Your task to perform on an android device: Open eBay Image 0: 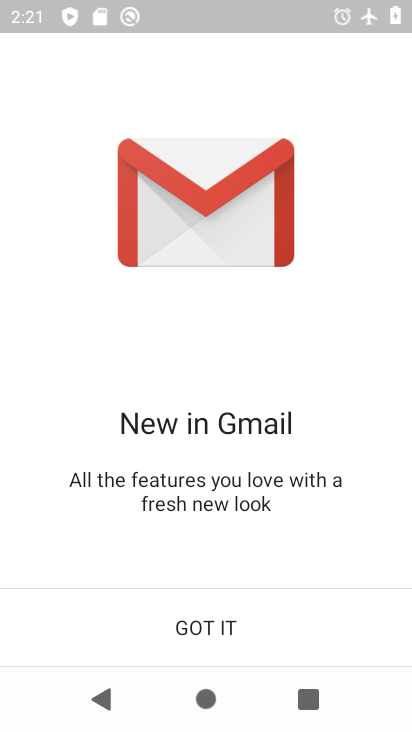
Step 0: press home button
Your task to perform on an android device: Open eBay Image 1: 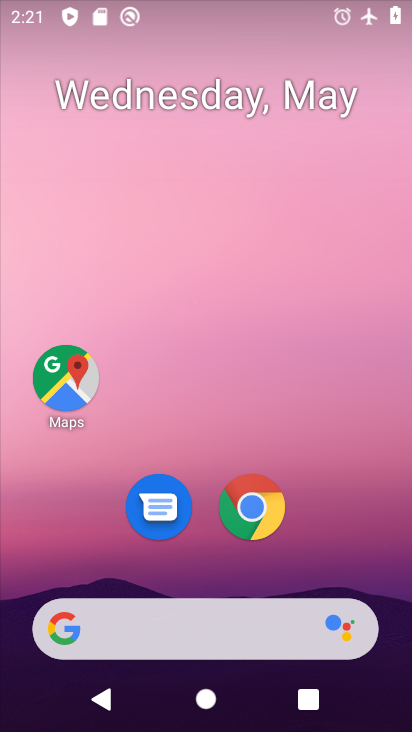
Step 1: drag from (330, 515) to (283, 178)
Your task to perform on an android device: Open eBay Image 2: 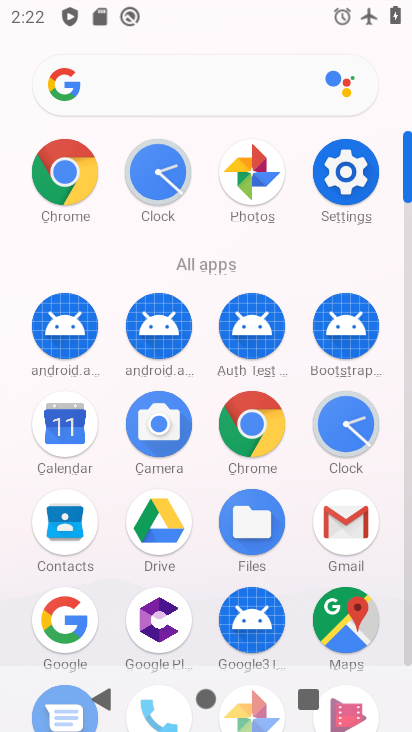
Step 2: click (252, 418)
Your task to perform on an android device: Open eBay Image 3: 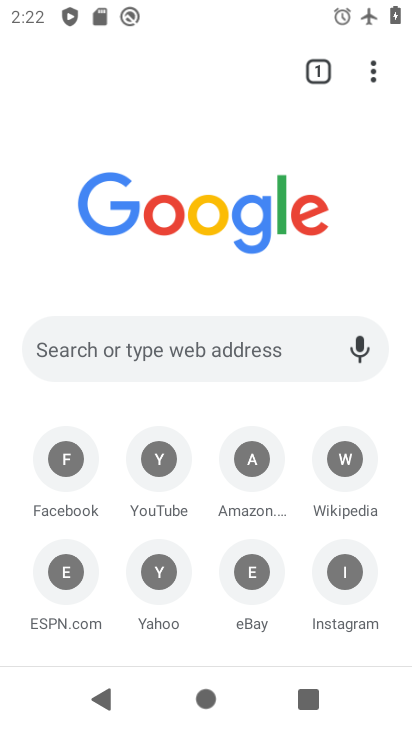
Step 3: click (84, 341)
Your task to perform on an android device: Open eBay Image 4: 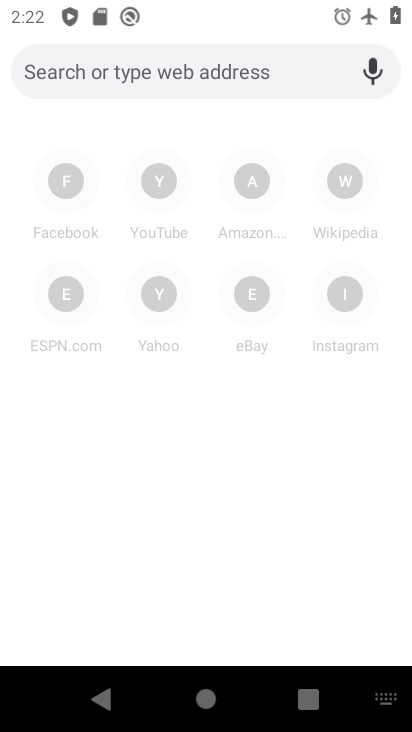
Step 4: type "ebay"
Your task to perform on an android device: Open eBay Image 5: 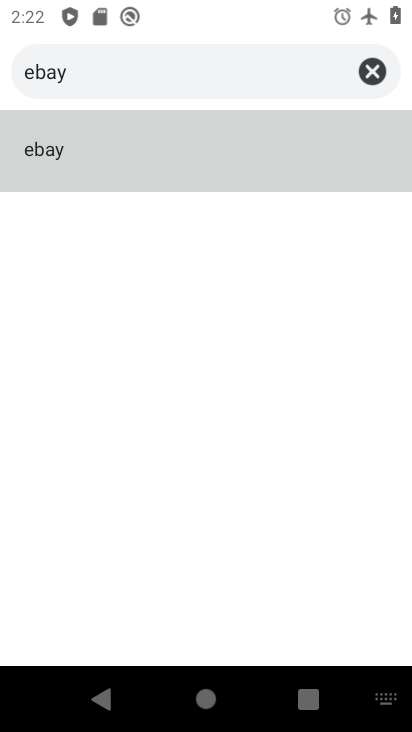
Step 5: click (26, 159)
Your task to perform on an android device: Open eBay Image 6: 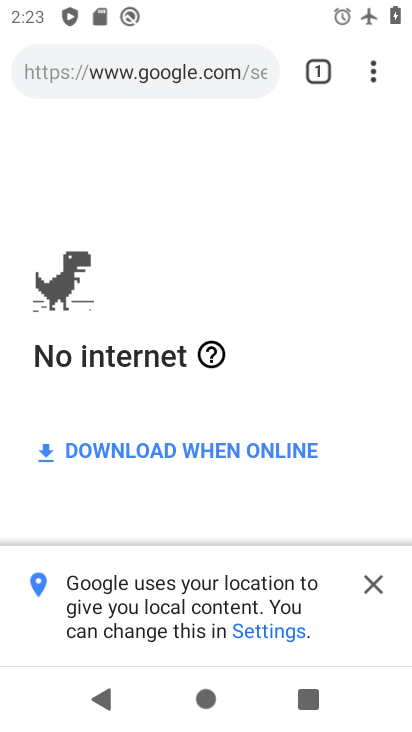
Step 6: task complete